Your task to perform on an android device: set the stopwatch Image 0: 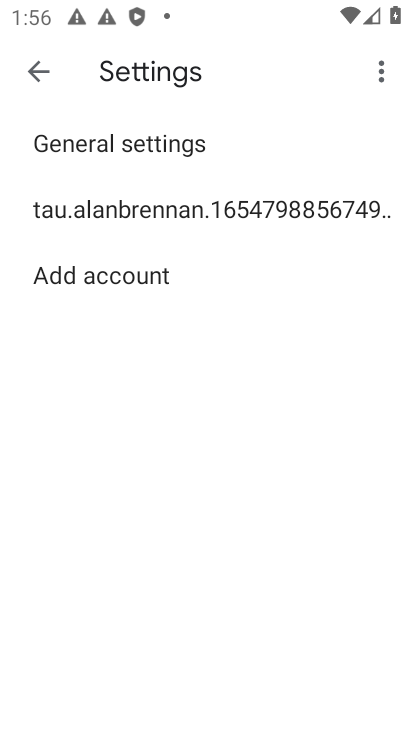
Step 0: press home button
Your task to perform on an android device: set the stopwatch Image 1: 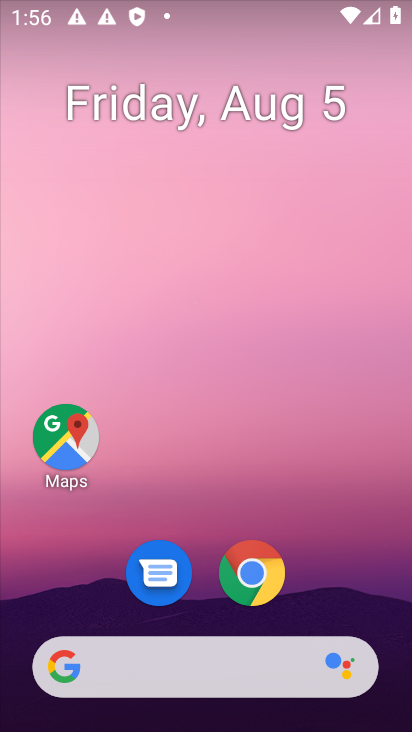
Step 1: drag from (337, 604) to (349, 203)
Your task to perform on an android device: set the stopwatch Image 2: 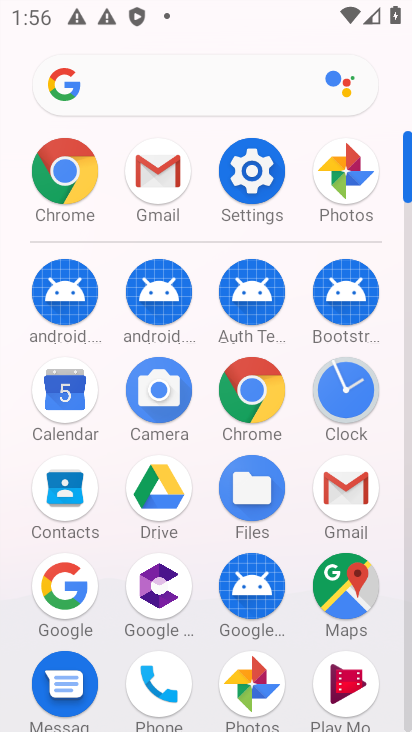
Step 2: click (341, 393)
Your task to perform on an android device: set the stopwatch Image 3: 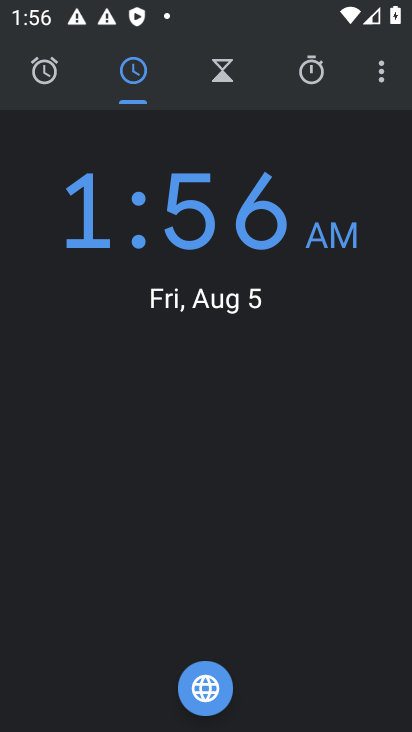
Step 3: click (311, 72)
Your task to perform on an android device: set the stopwatch Image 4: 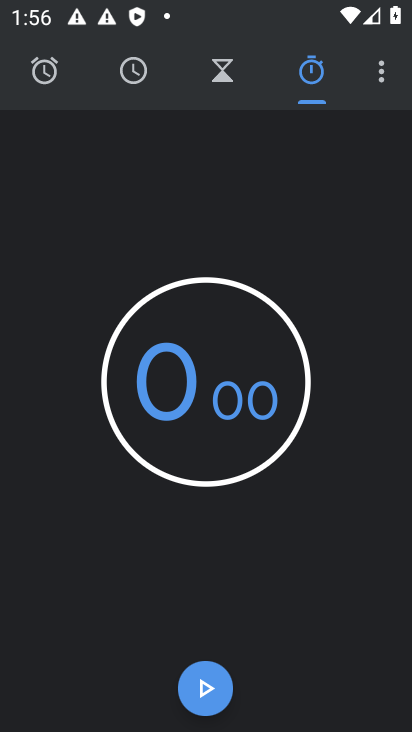
Step 4: click (197, 692)
Your task to perform on an android device: set the stopwatch Image 5: 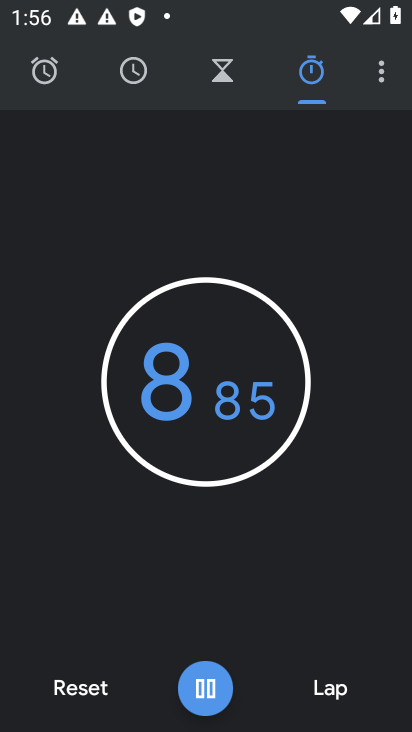
Step 5: task complete